Your task to perform on an android device: turn on sleep mode Image 0: 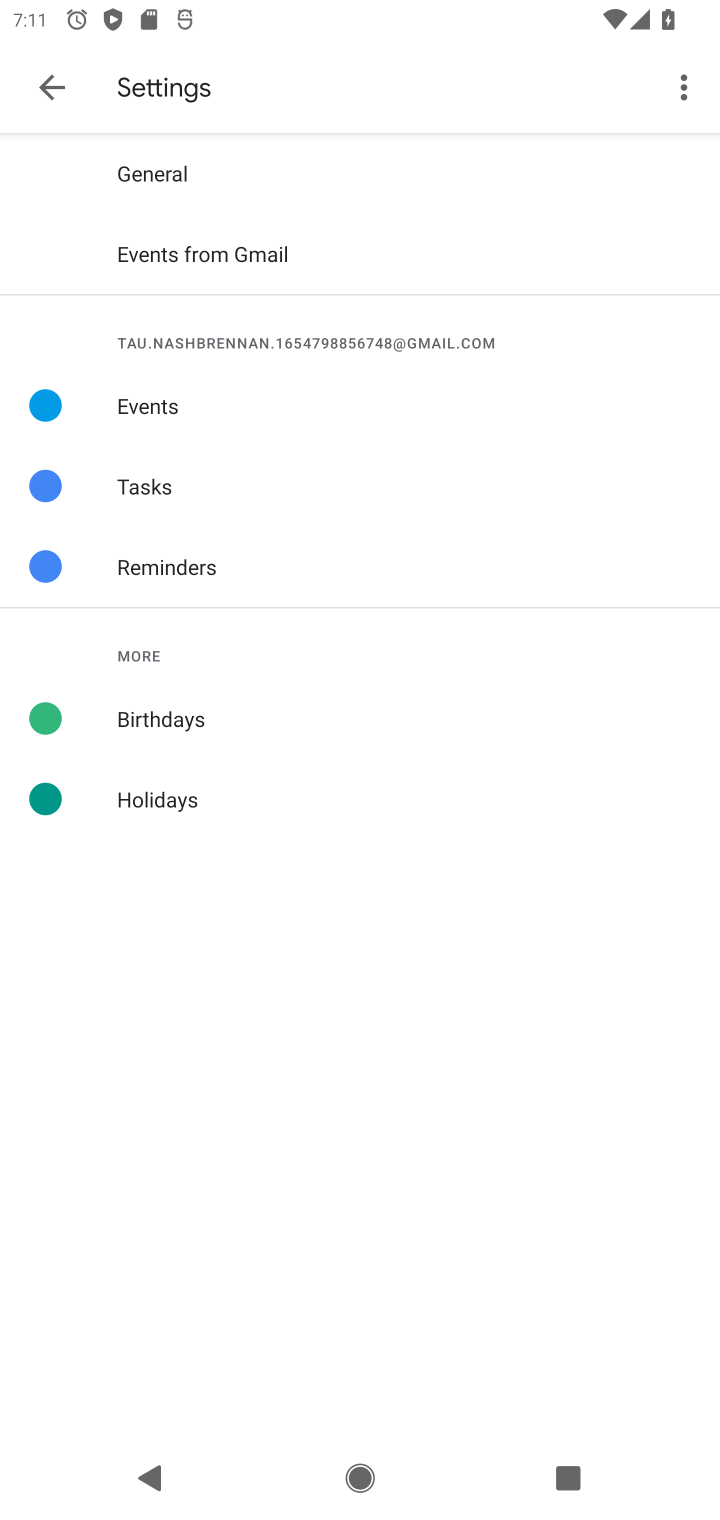
Step 0: press home button
Your task to perform on an android device: turn on sleep mode Image 1: 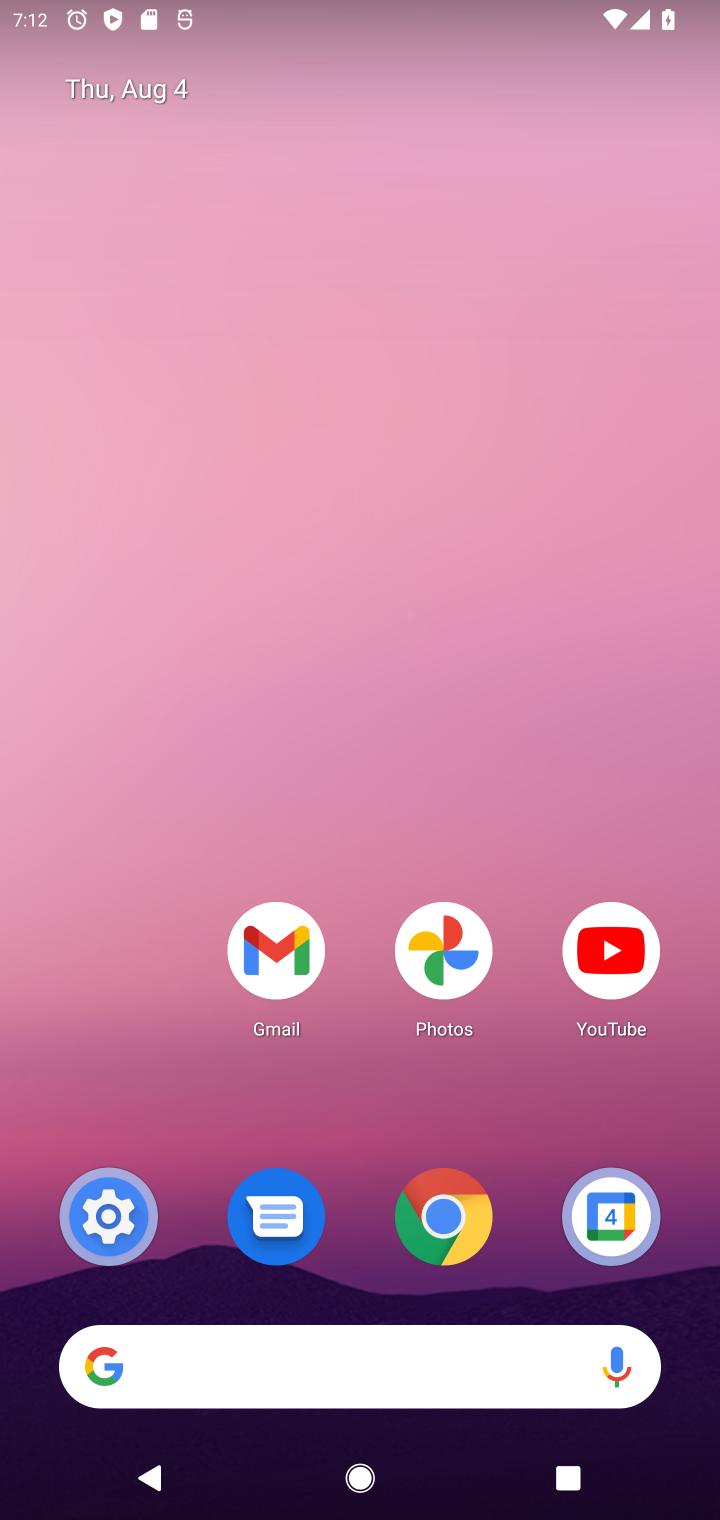
Step 1: click (97, 1206)
Your task to perform on an android device: turn on sleep mode Image 2: 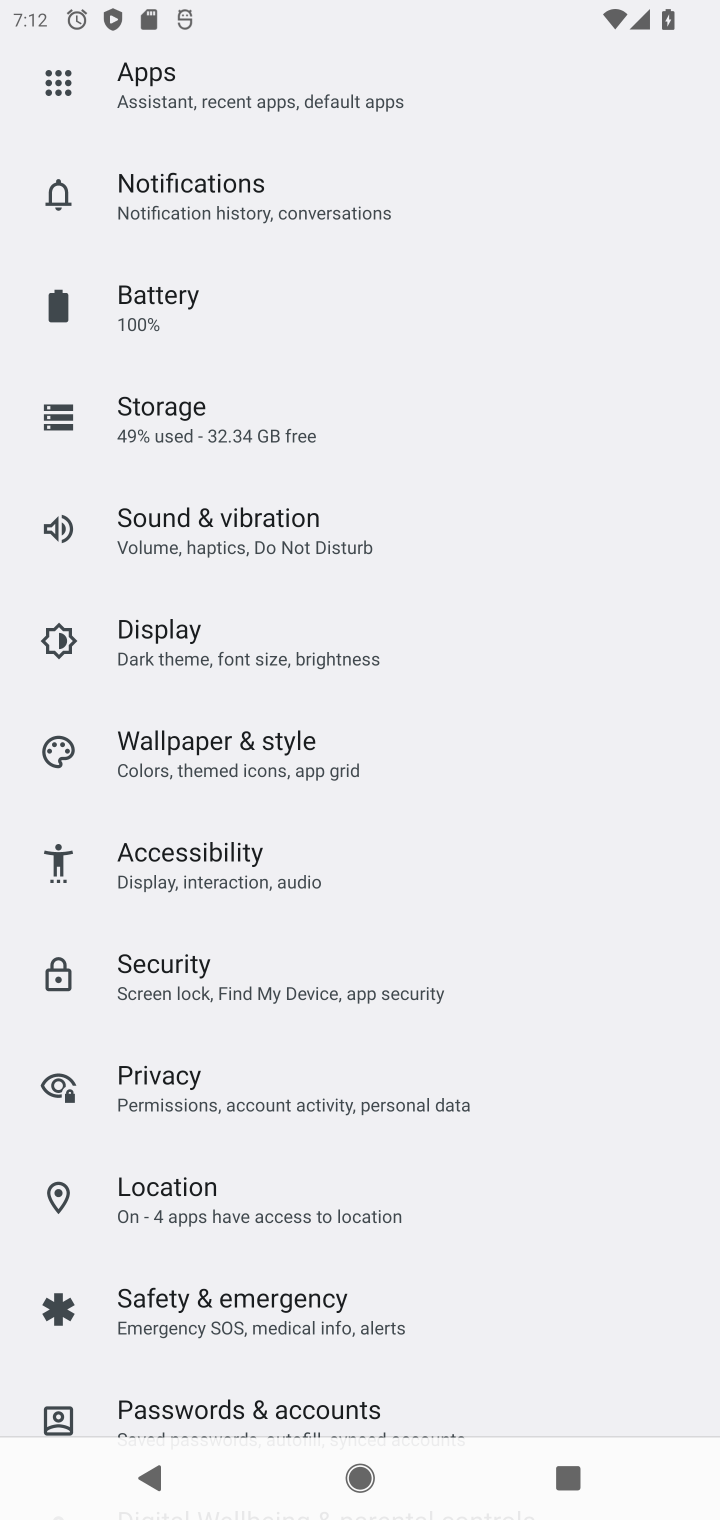
Step 2: click (286, 643)
Your task to perform on an android device: turn on sleep mode Image 3: 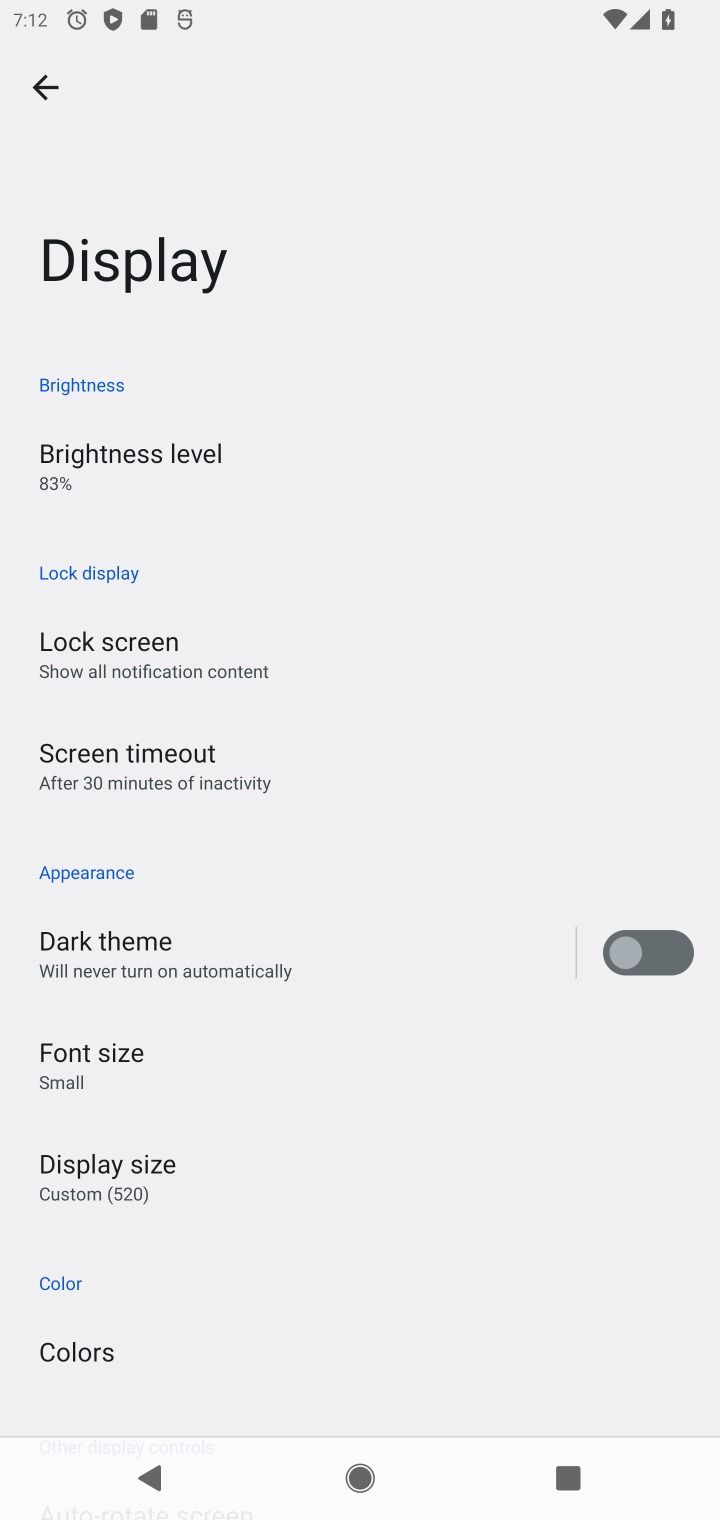
Step 3: task complete